Your task to perform on an android device: all mails in gmail Image 0: 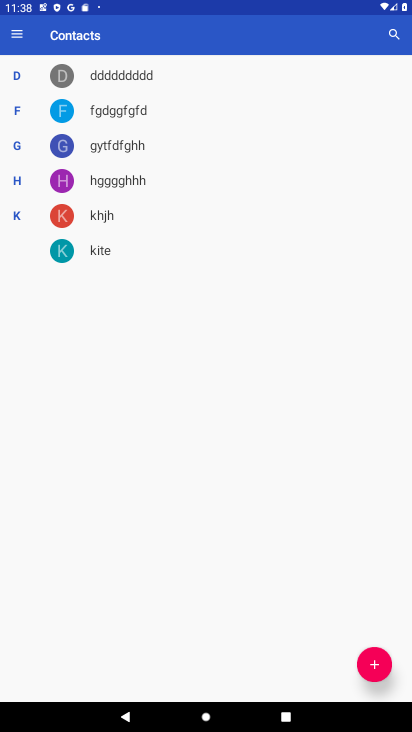
Step 0: press home button
Your task to perform on an android device: all mails in gmail Image 1: 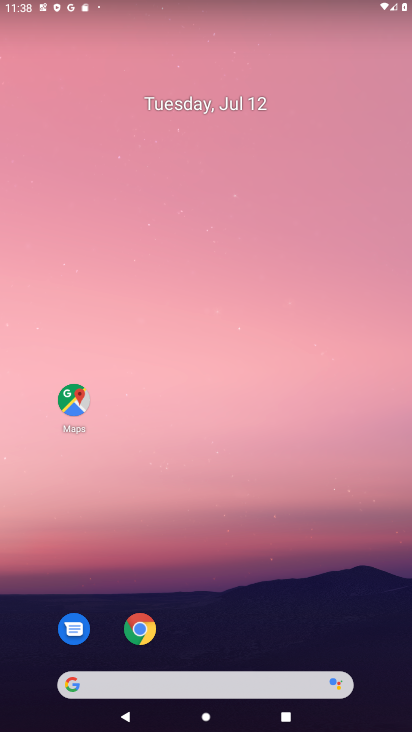
Step 1: drag from (287, 503) to (224, 91)
Your task to perform on an android device: all mails in gmail Image 2: 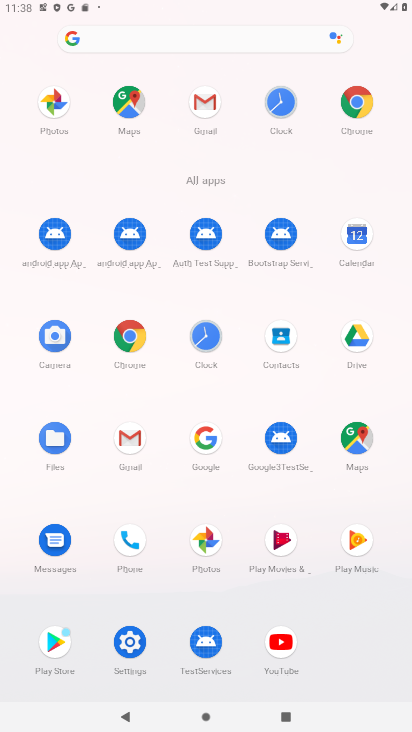
Step 2: click (200, 117)
Your task to perform on an android device: all mails in gmail Image 3: 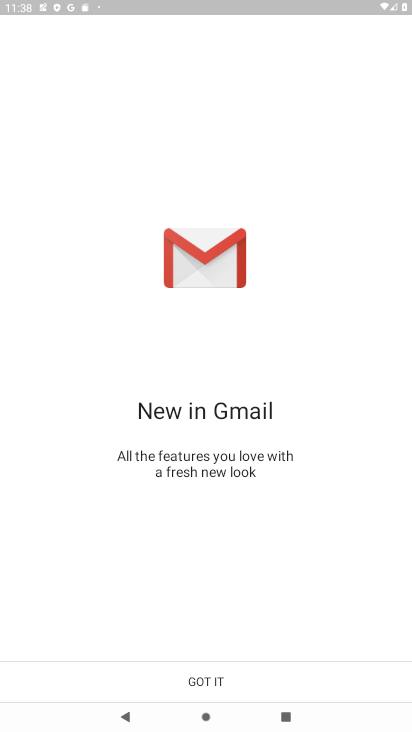
Step 3: click (213, 693)
Your task to perform on an android device: all mails in gmail Image 4: 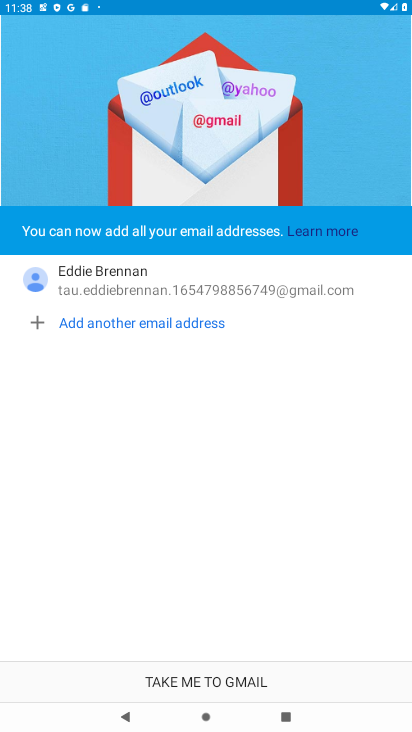
Step 4: click (213, 693)
Your task to perform on an android device: all mails in gmail Image 5: 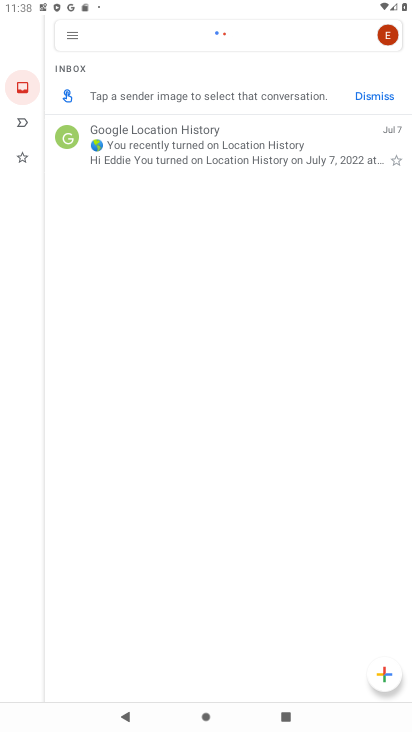
Step 5: click (70, 40)
Your task to perform on an android device: all mails in gmail Image 6: 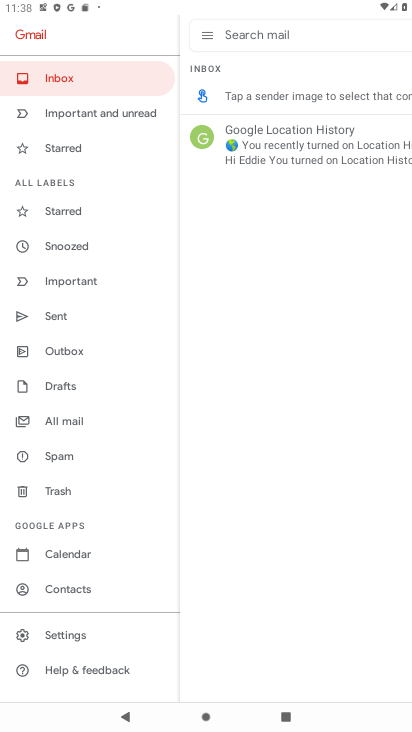
Step 6: click (65, 424)
Your task to perform on an android device: all mails in gmail Image 7: 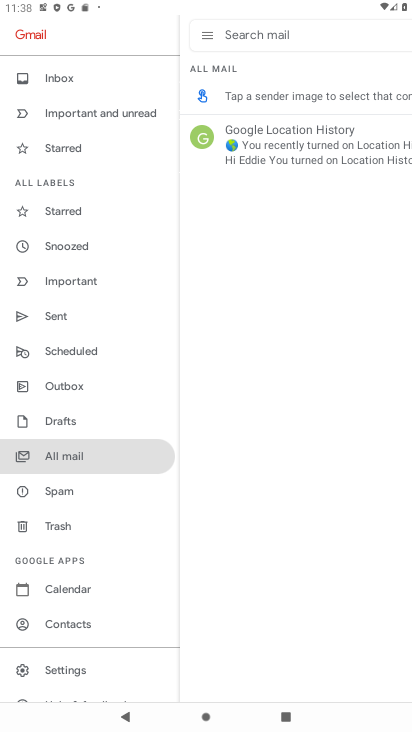
Step 7: click (60, 463)
Your task to perform on an android device: all mails in gmail Image 8: 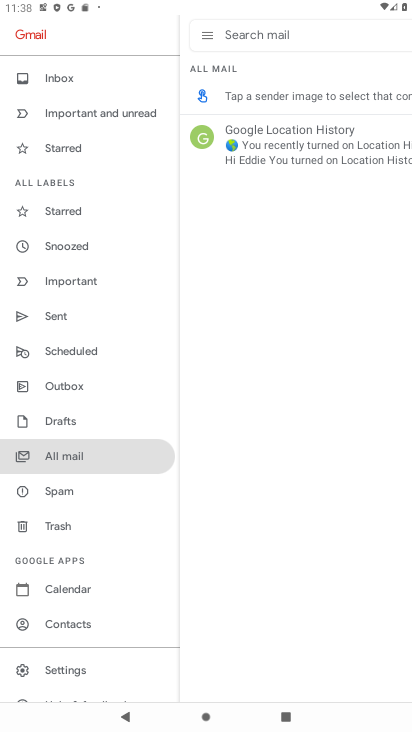
Step 8: task complete